Your task to perform on an android device: turn on airplane mode Image 0: 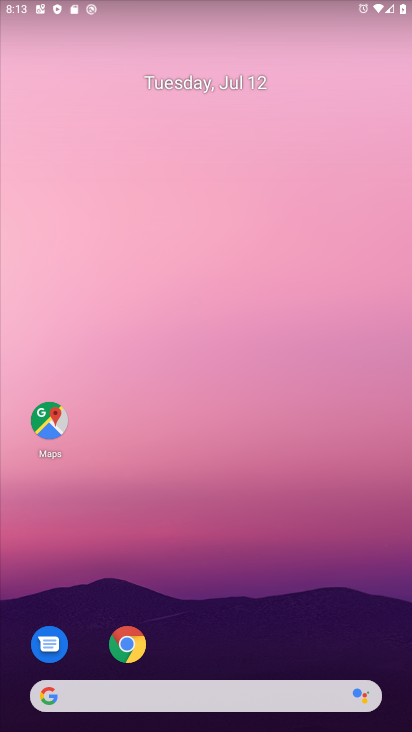
Step 0: click (124, 649)
Your task to perform on an android device: turn on airplane mode Image 1: 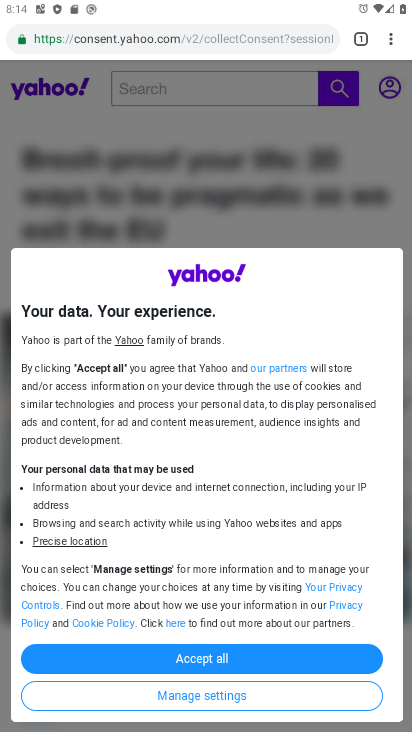
Step 1: press home button
Your task to perform on an android device: turn on airplane mode Image 2: 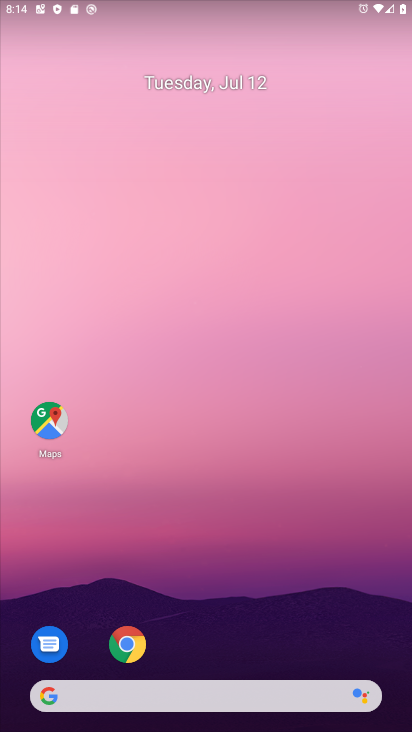
Step 2: drag from (242, 8) to (257, 494)
Your task to perform on an android device: turn on airplane mode Image 3: 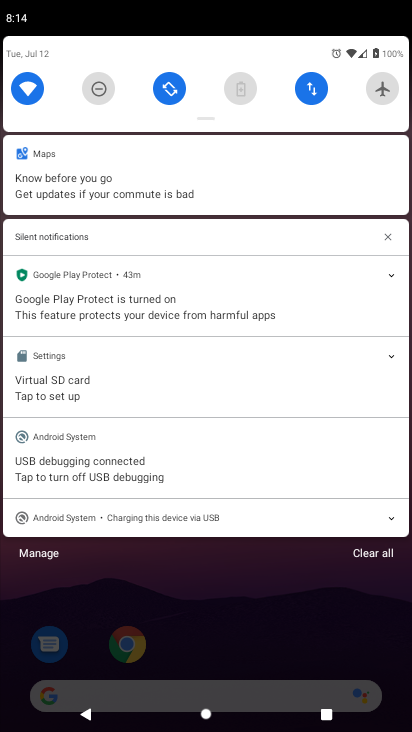
Step 3: click (371, 85)
Your task to perform on an android device: turn on airplane mode Image 4: 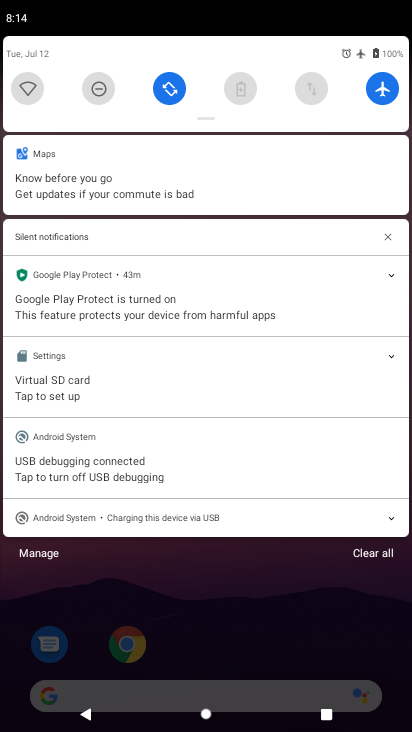
Step 4: task complete